Your task to perform on an android device: star an email in the gmail app Image 0: 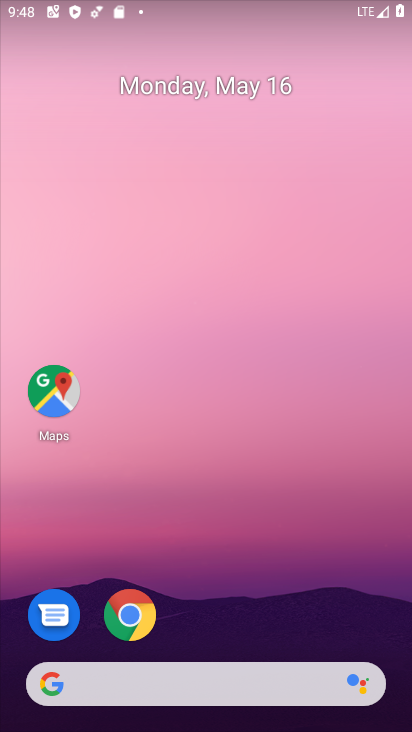
Step 0: drag from (217, 633) to (224, 27)
Your task to perform on an android device: star an email in the gmail app Image 1: 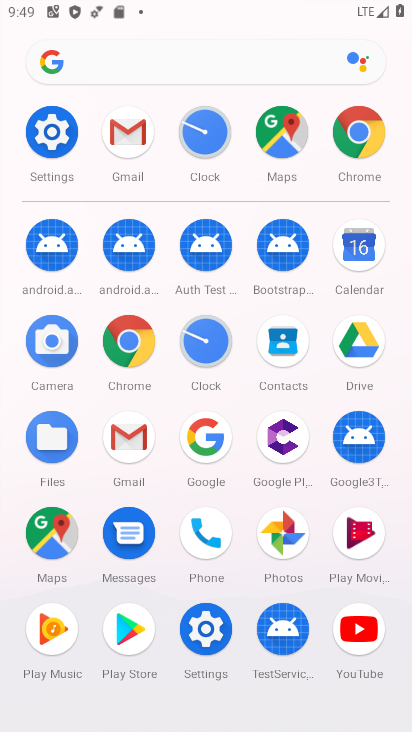
Step 1: click (131, 453)
Your task to perform on an android device: star an email in the gmail app Image 2: 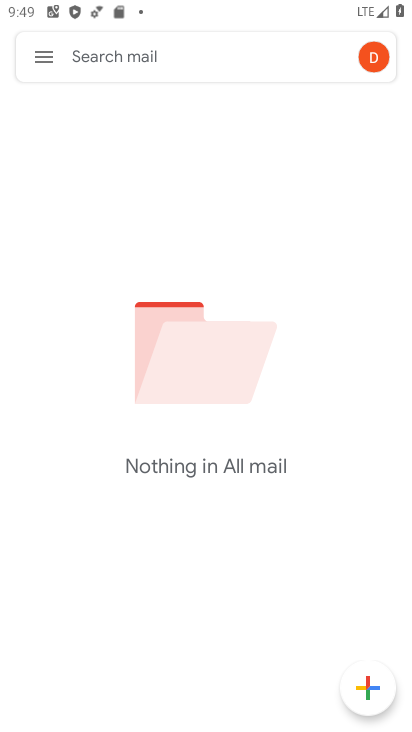
Step 2: task complete